Your task to perform on an android device: turn notification dots off Image 0: 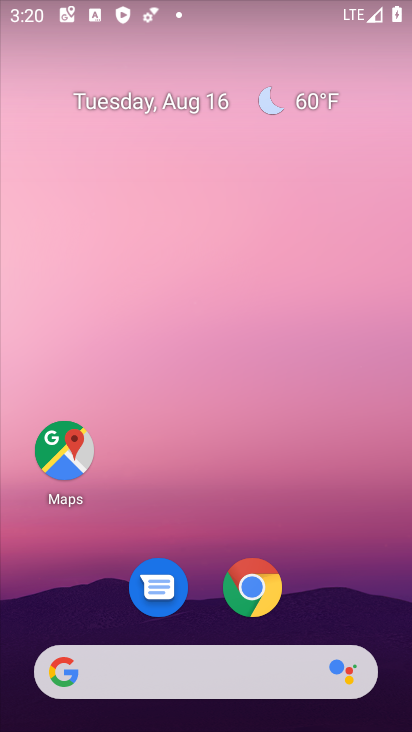
Step 0: drag from (214, 583) to (295, 14)
Your task to perform on an android device: turn notification dots off Image 1: 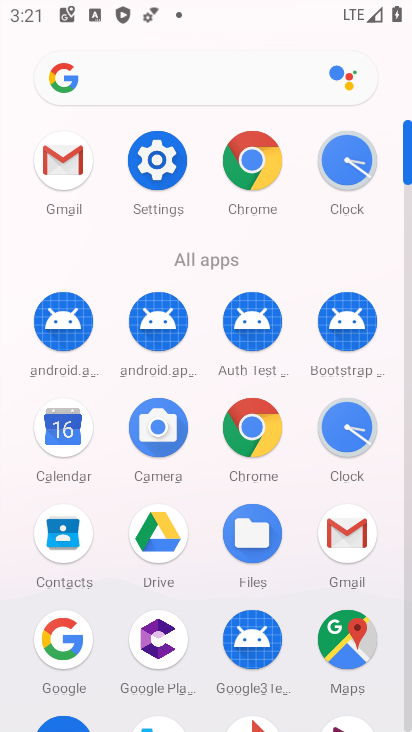
Step 1: click (156, 158)
Your task to perform on an android device: turn notification dots off Image 2: 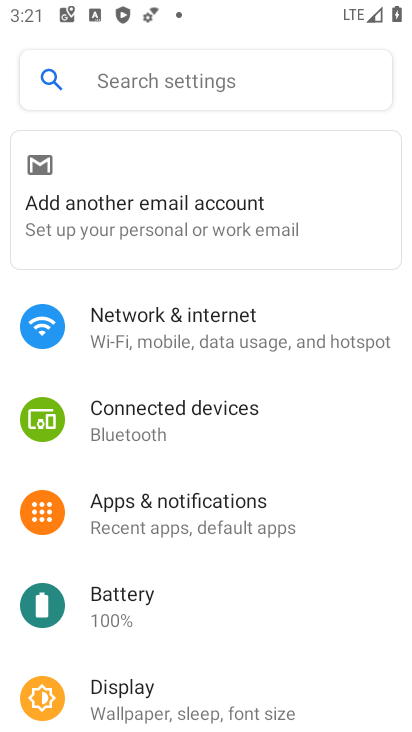
Step 2: click (199, 522)
Your task to perform on an android device: turn notification dots off Image 3: 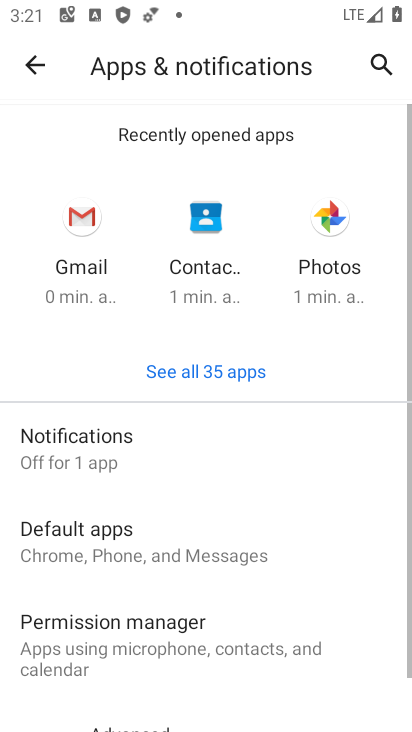
Step 3: drag from (194, 659) to (290, 183)
Your task to perform on an android device: turn notification dots off Image 4: 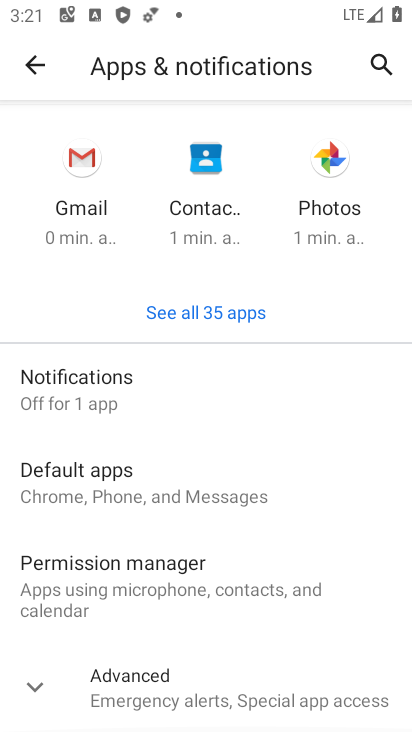
Step 4: click (160, 670)
Your task to perform on an android device: turn notification dots off Image 5: 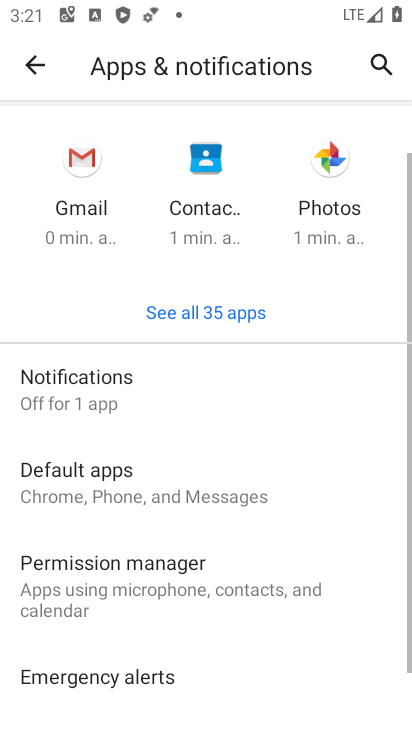
Step 5: drag from (160, 670) to (235, 245)
Your task to perform on an android device: turn notification dots off Image 6: 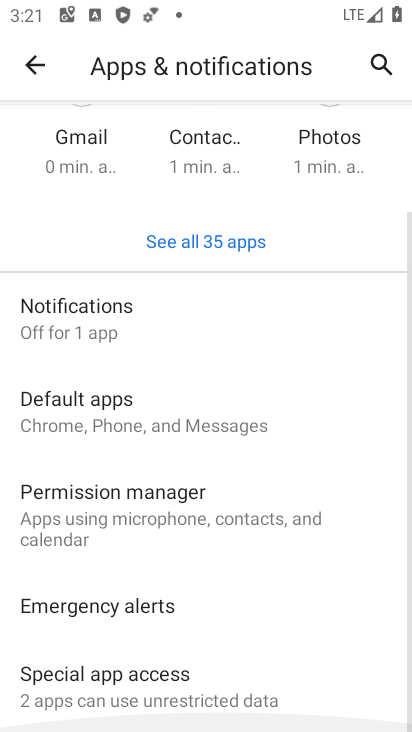
Step 6: click (92, 313)
Your task to perform on an android device: turn notification dots off Image 7: 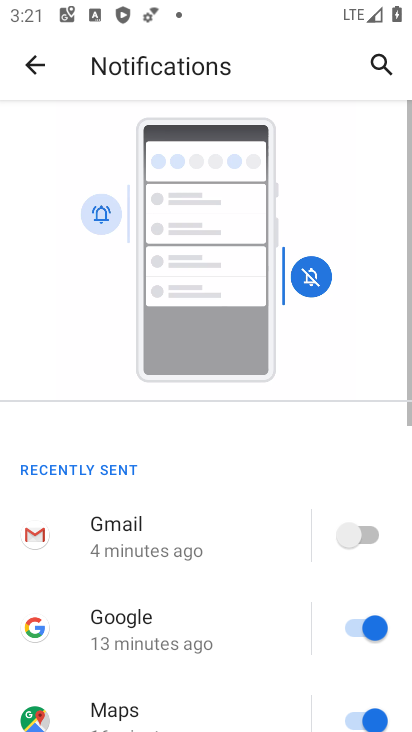
Step 7: drag from (108, 543) to (234, 11)
Your task to perform on an android device: turn notification dots off Image 8: 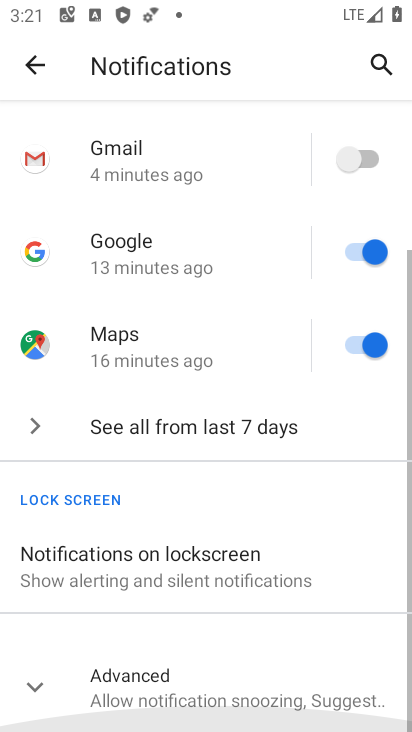
Step 8: drag from (223, 521) to (297, 88)
Your task to perform on an android device: turn notification dots off Image 9: 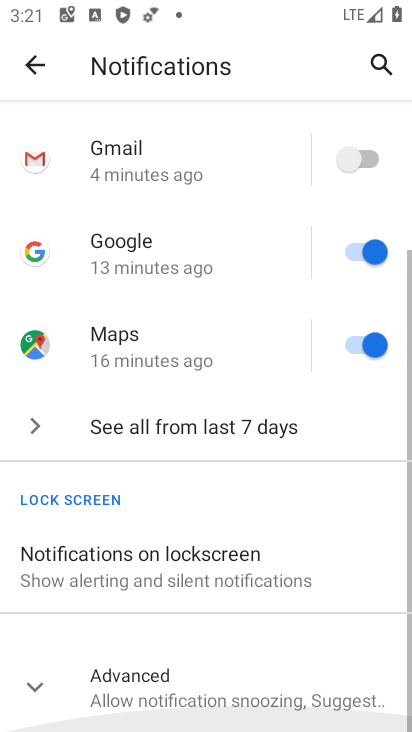
Step 9: click (197, 672)
Your task to perform on an android device: turn notification dots off Image 10: 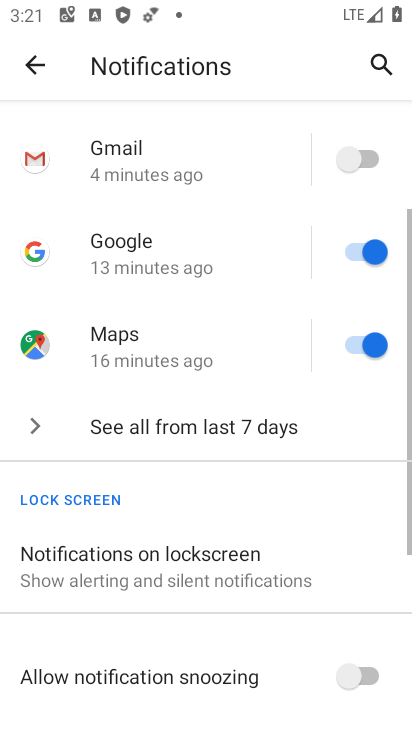
Step 10: drag from (197, 672) to (265, 86)
Your task to perform on an android device: turn notification dots off Image 11: 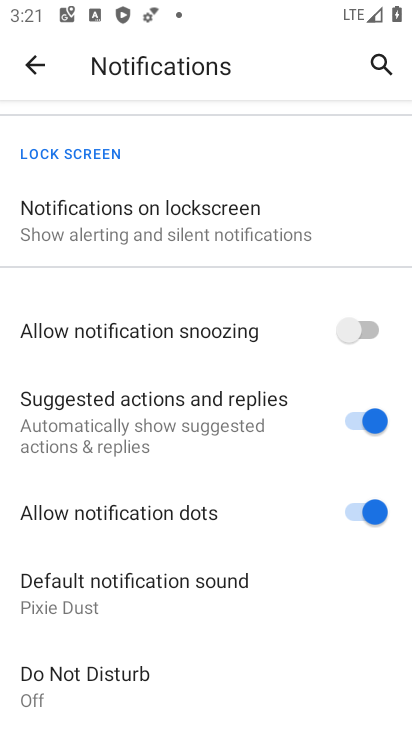
Step 11: click (375, 508)
Your task to perform on an android device: turn notification dots off Image 12: 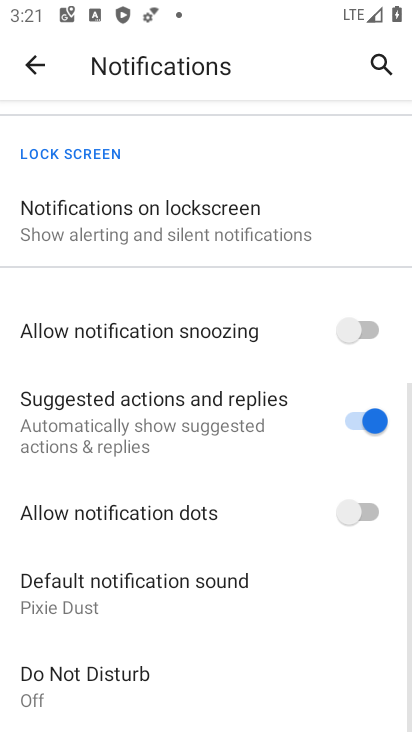
Step 12: task complete